Your task to perform on an android device: turn notification dots off Image 0: 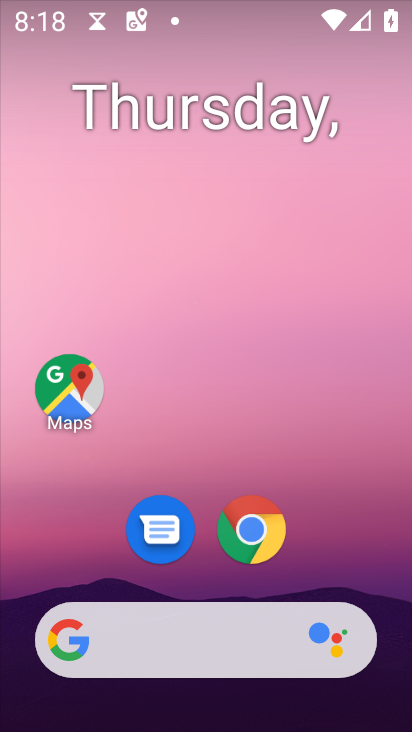
Step 0: drag from (209, 579) to (271, 137)
Your task to perform on an android device: turn notification dots off Image 1: 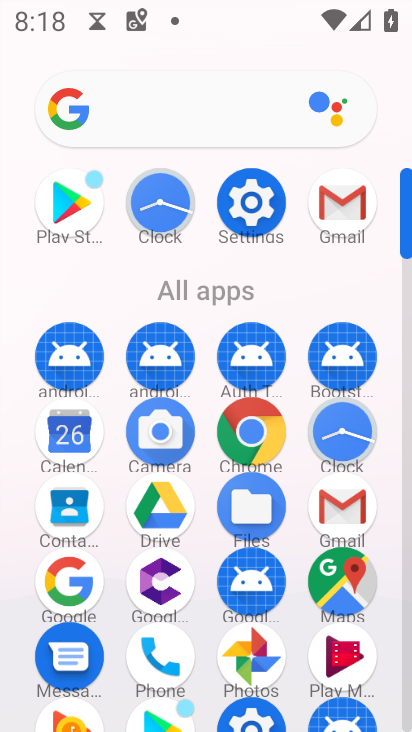
Step 1: click (249, 194)
Your task to perform on an android device: turn notification dots off Image 2: 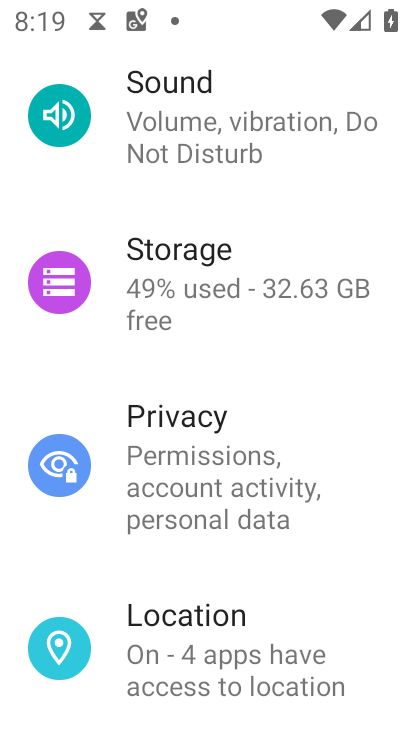
Step 2: drag from (232, 105) to (205, 651)
Your task to perform on an android device: turn notification dots off Image 3: 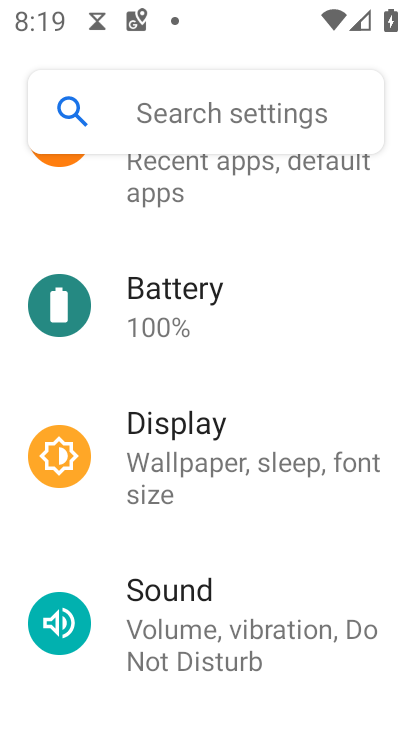
Step 3: drag from (205, 184) to (221, 699)
Your task to perform on an android device: turn notification dots off Image 4: 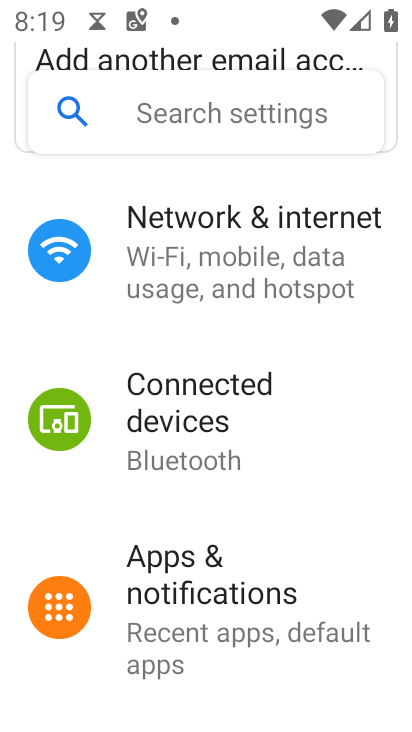
Step 4: click (219, 600)
Your task to perform on an android device: turn notification dots off Image 5: 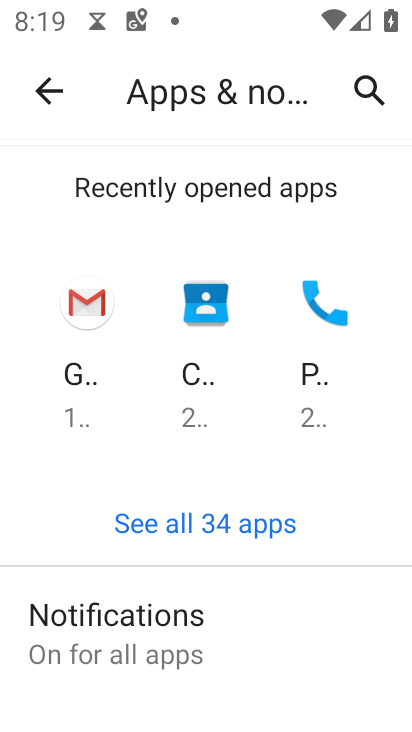
Step 5: click (224, 624)
Your task to perform on an android device: turn notification dots off Image 6: 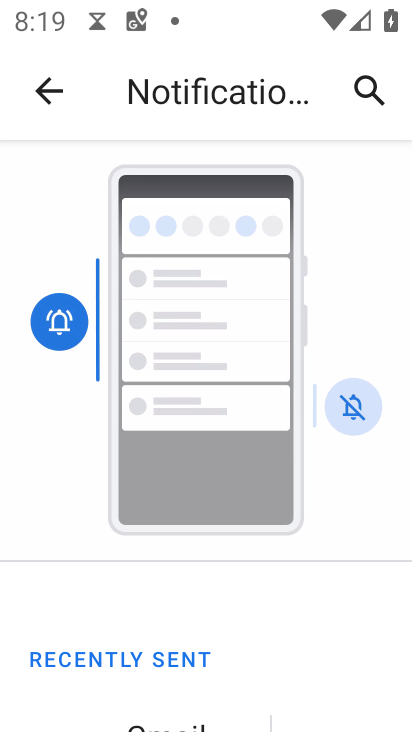
Step 6: drag from (237, 654) to (250, 323)
Your task to perform on an android device: turn notification dots off Image 7: 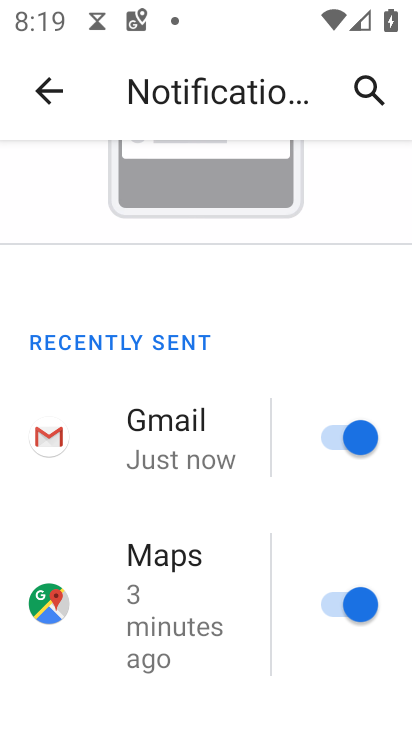
Step 7: drag from (242, 616) to (249, 270)
Your task to perform on an android device: turn notification dots off Image 8: 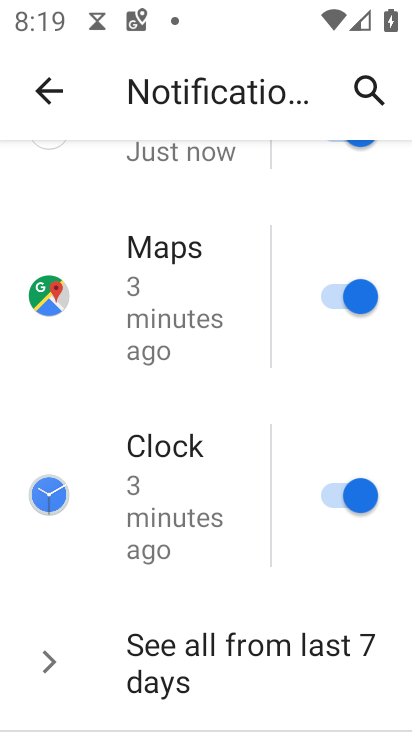
Step 8: drag from (233, 675) to (261, 162)
Your task to perform on an android device: turn notification dots off Image 9: 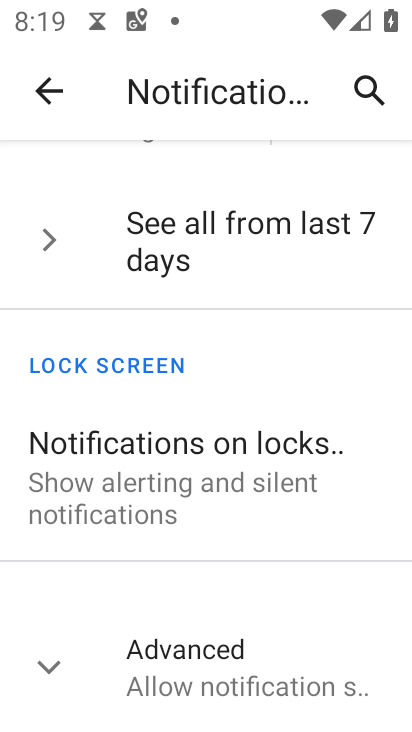
Step 9: click (45, 664)
Your task to perform on an android device: turn notification dots off Image 10: 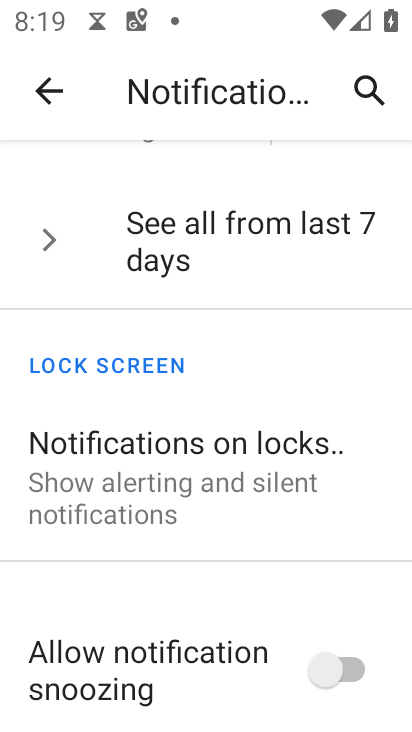
Step 10: drag from (177, 674) to (222, 174)
Your task to perform on an android device: turn notification dots off Image 11: 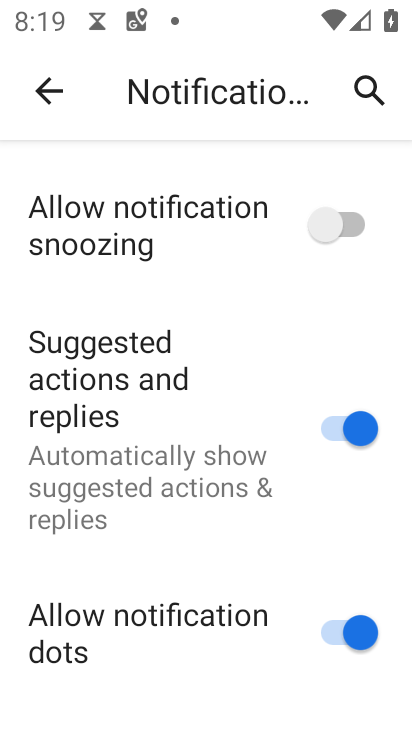
Step 11: click (338, 627)
Your task to perform on an android device: turn notification dots off Image 12: 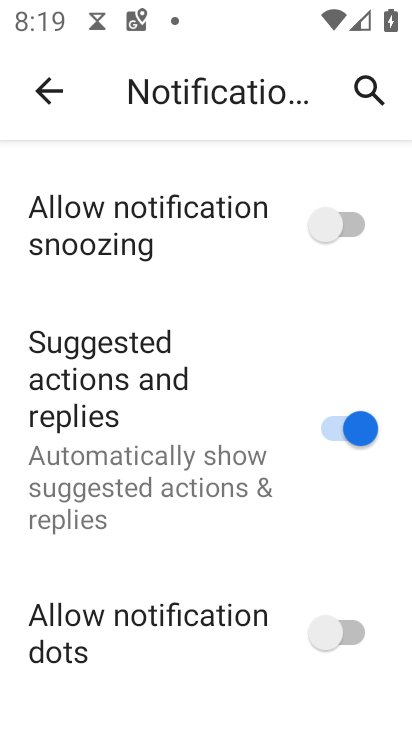
Step 12: task complete